Your task to perform on an android device: Open the map Image 0: 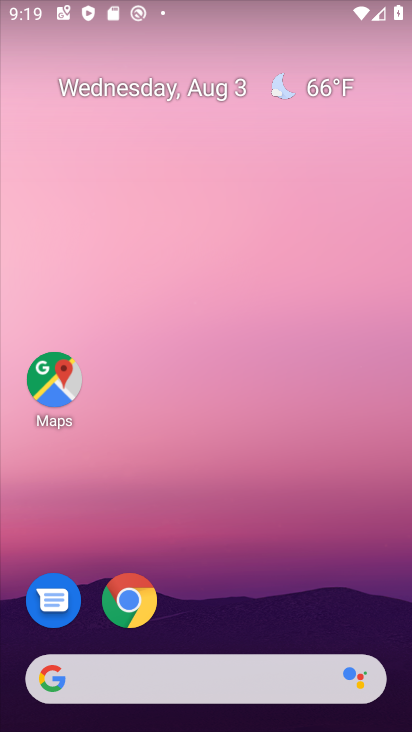
Step 0: click (70, 385)
Your task to perform on an android device: Open the map Image 1: 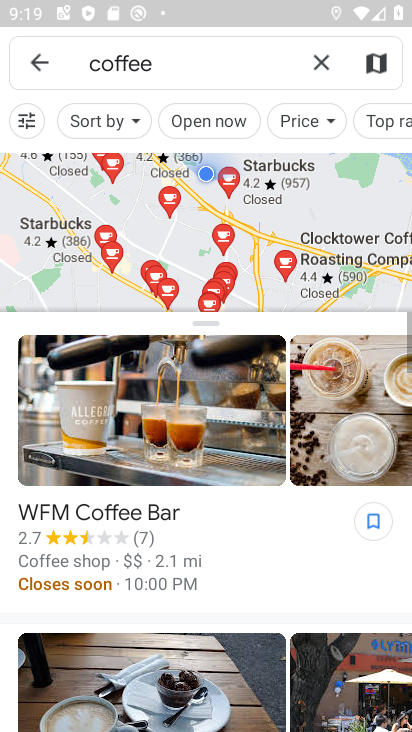
Step 1: click (40, 74)
Your task to perform on an android device: Open the map Image 2: 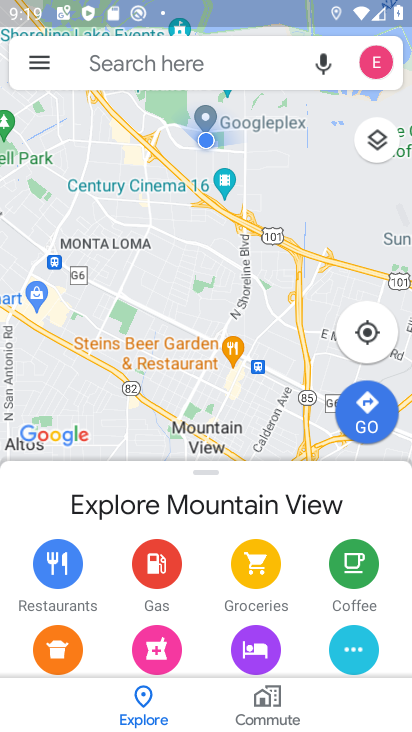
Step 2: task complete